Your task to perform on an android device: show emergency info Image 0: 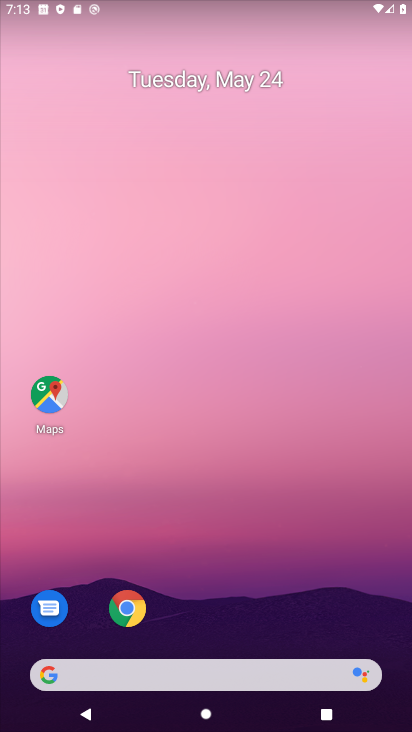
Step 0: drag from (231, 616) to (211, 169)
Your task to perform on an android device: show emergency info Image 1: 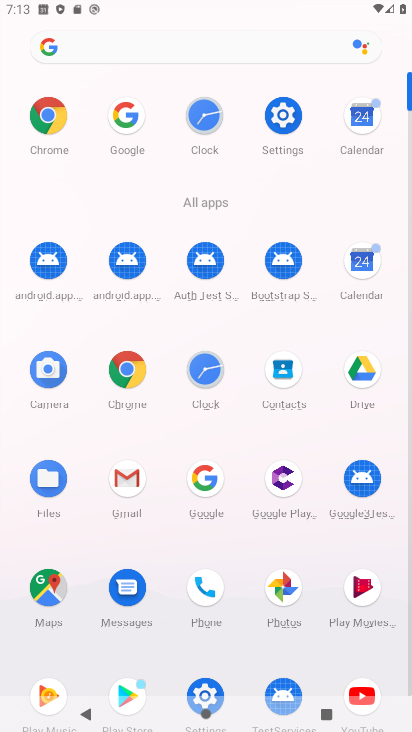
Step 1: click (284, 115)
Your task to perform on an android device: show emergency info Image 2: 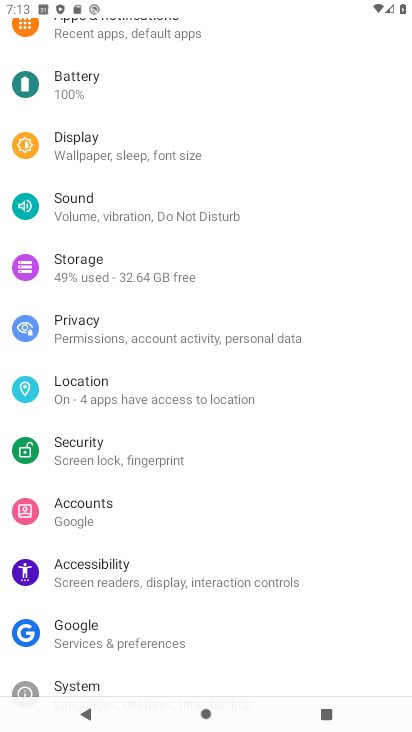
Step 2: drag from (156, 541) to (197, 435)
Your task to perform on an android device: show emergency info Image 3: 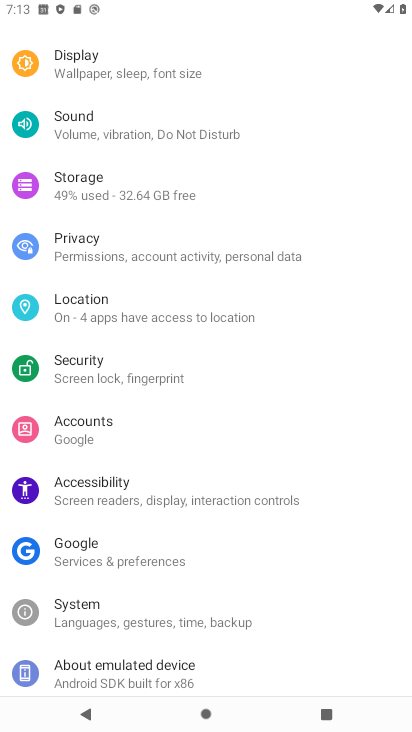
Step 3: click (123, 668)
Your task to perform on an android device: show emergency info Image 4: 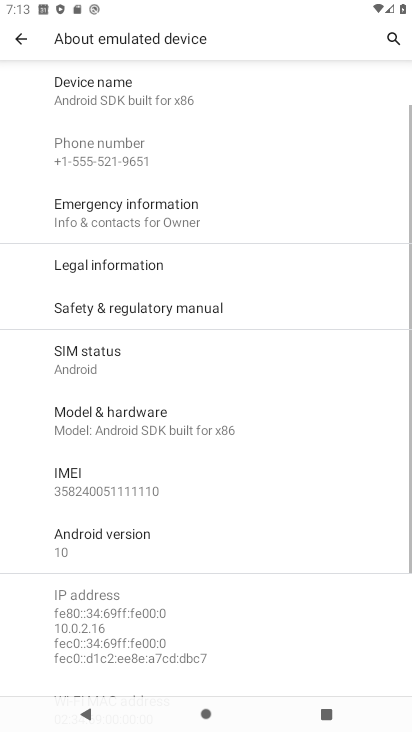
Step 4: click (125, 206)
Your task to perform on an android device: show emergency info Image 5: 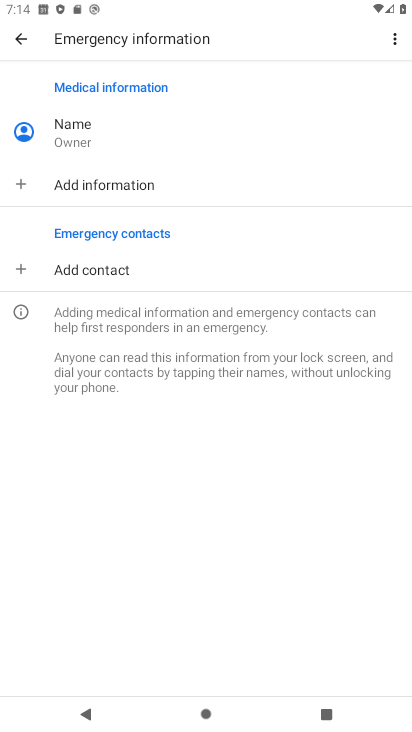
Step 5: task complete